Your task to perform on an android device: Go to Android settings Image 0: 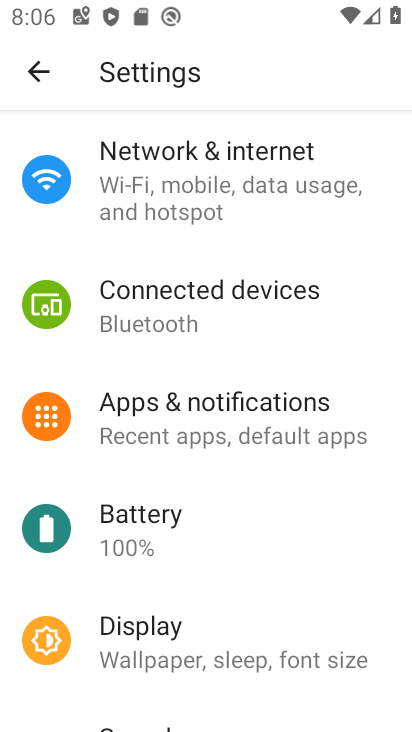
Step 0: press home button
Your task to perform on an android device: Go to Android settings Image 1: 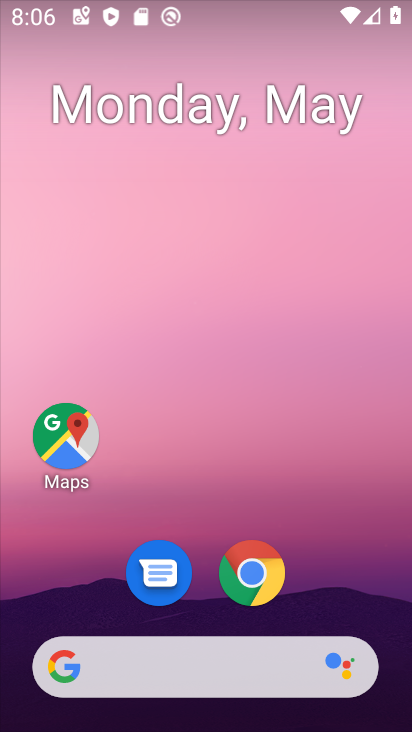
Step 1: drag from (355, 552) to (300, 144)
Your task to perform on an android device: Go to Android settings Image 2: 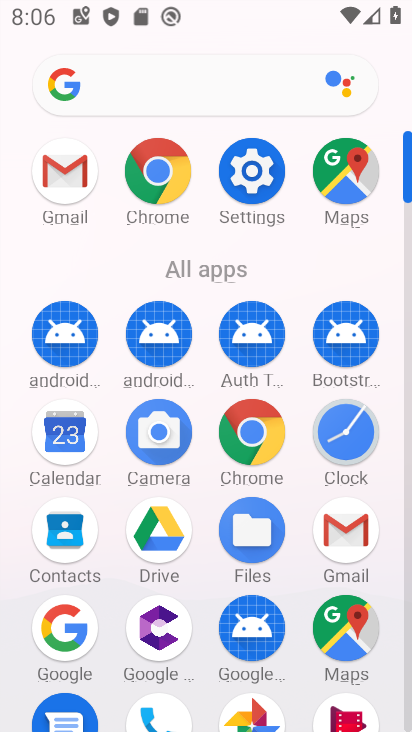
Step 2: click (249, 202)
Your task to perform on an android device: Go to Android settings Image 3: 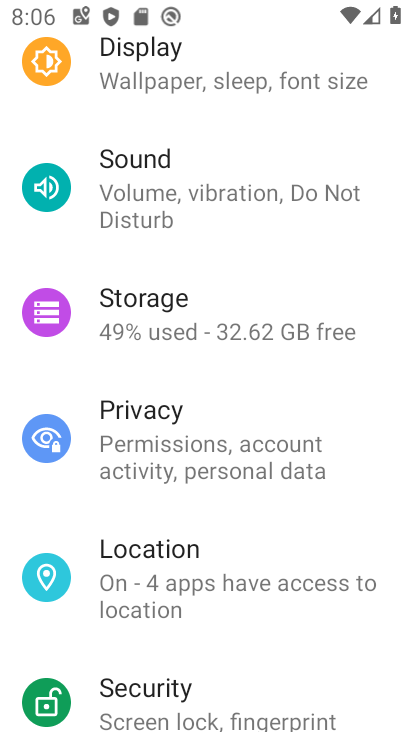
Step 3: task complete